Your task to perform on an android device: open a new tab in the chrome app Image 0: 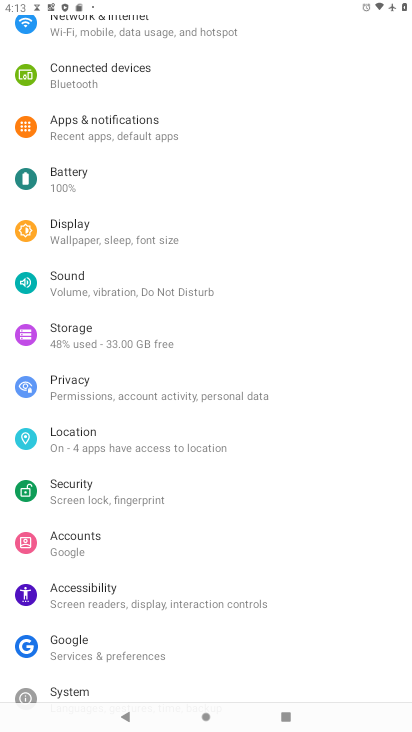
Step 0: press back button
Your task to perform on an android device: open a new tab in the chrome app Image 1: 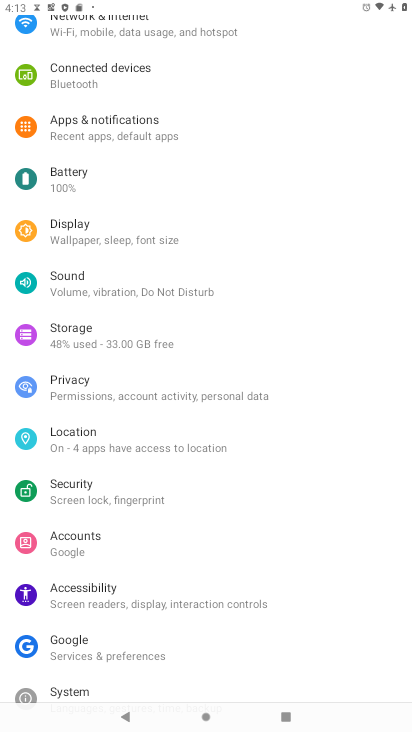
Step 1: press back button
Your task to perform on an android device: open a new tab in the chrome app Image 2: 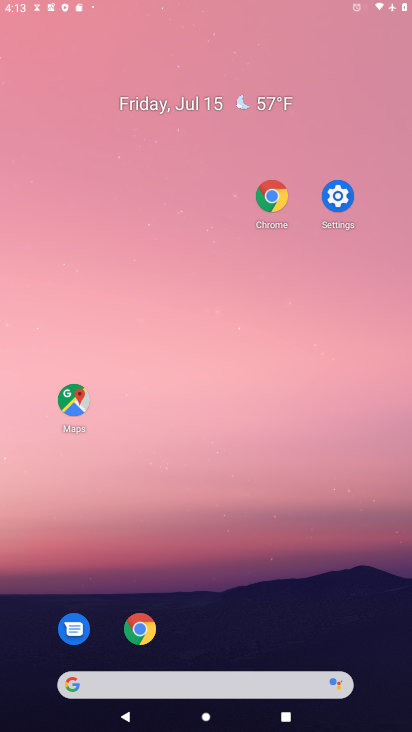
Step 2: press back button
Your task to perform on an android device: open a new tab in the chrome app Image 3: 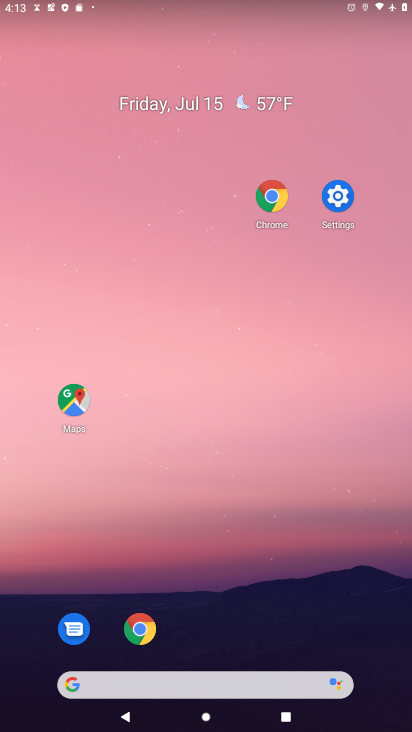
Step 3: drag from (256, 570) to (237, 83)
Your task to perform on an android device: open a new tab in the chrome app Image 4: 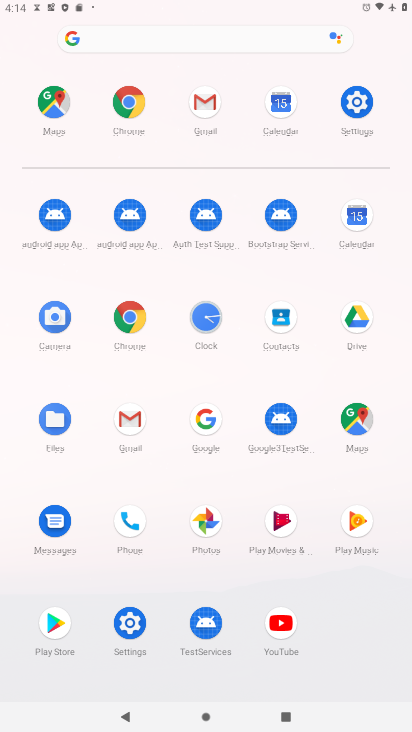
Step 4: click (105, 315)
Your task to perform on an android device: open a new tab in the chrome app Image 5: 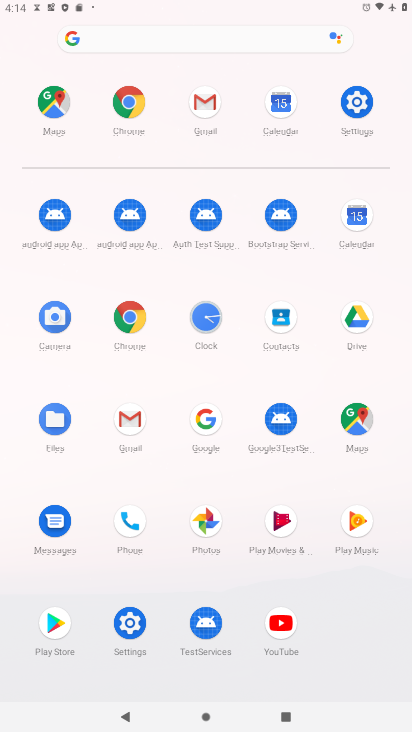
Step 5: click (110, 315)
Your task to perform on an android device: open a new tab in the chrome app Image 6: 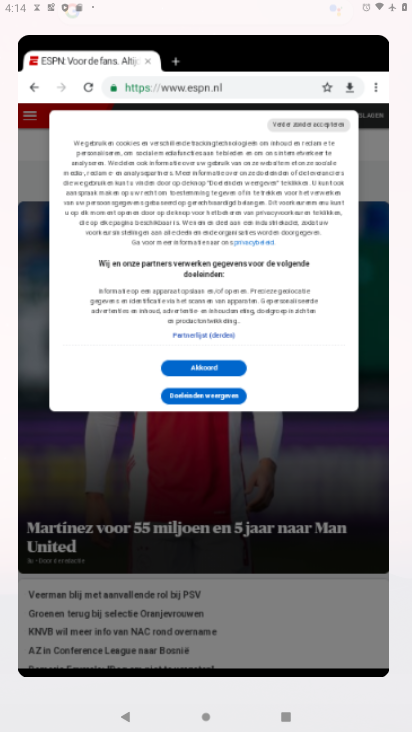
Step 6: click (124, 321)
Your task to perform on an android device: open a new tab in the chrome app Image 7: 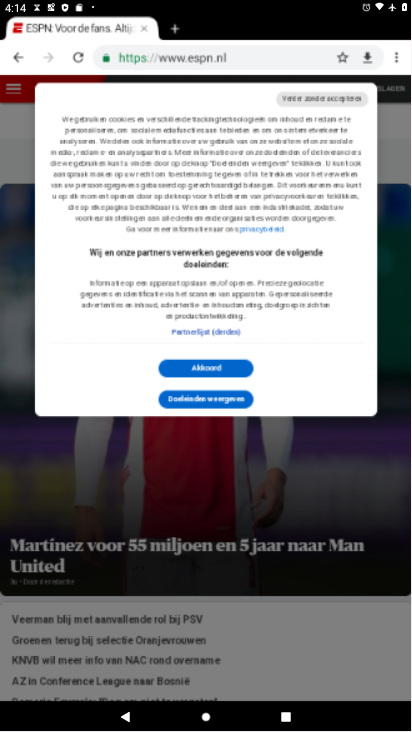
Step 7: click (128, 321)
Your task to perform on an android device: open a new tab in the chrome app Image 8: 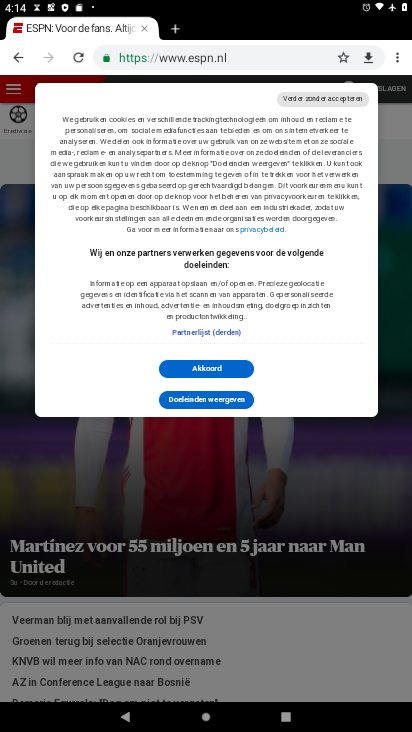
Step 8: task complete